Your task to perform on an android device: turn on data saver in the chrome app Image 0: 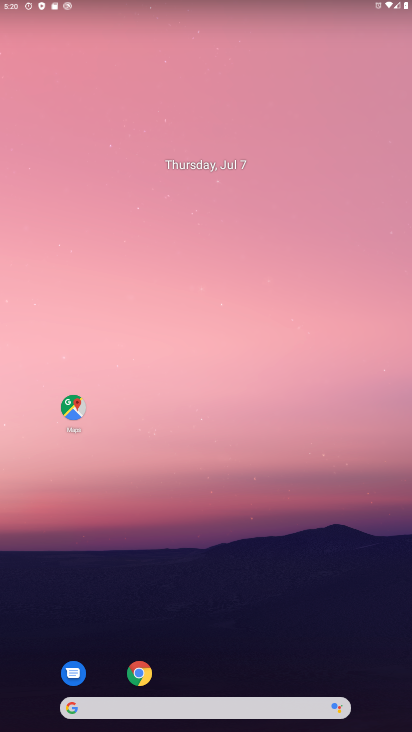
Step 0: drag from (341, 677) to (301, 37)
Your task to perform on an android device: turn on data saver in the chrome app Image 1: 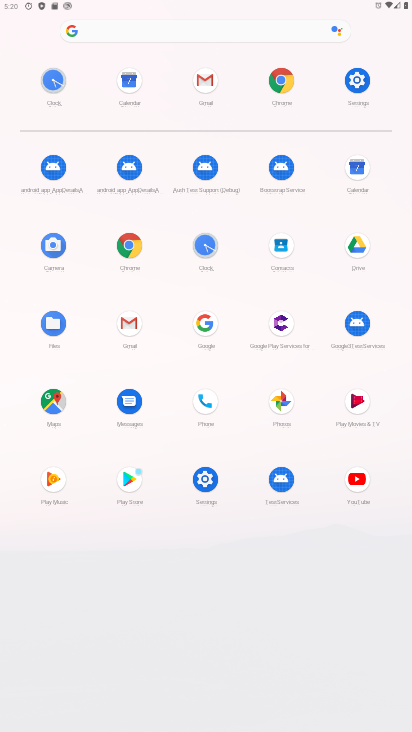
Step 1: click (130, 251)
Your task to perform on an android device: turn on data saver in the chrome app Image 2: 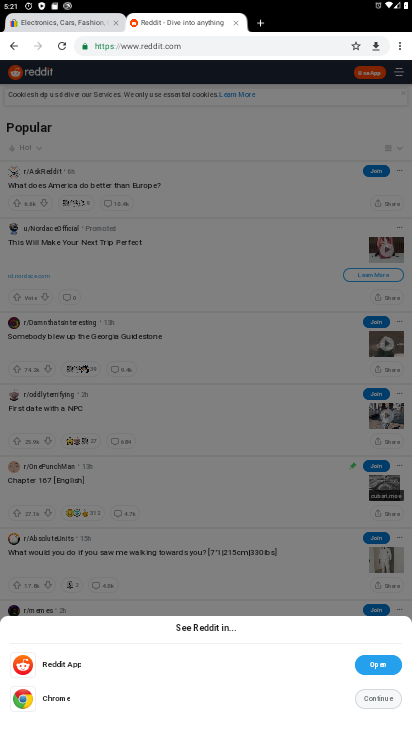
Step 2: drag from (399, 43) to (313, 314)
Your task to perform on an android device: turn on data saver in the chrome app Image 3: 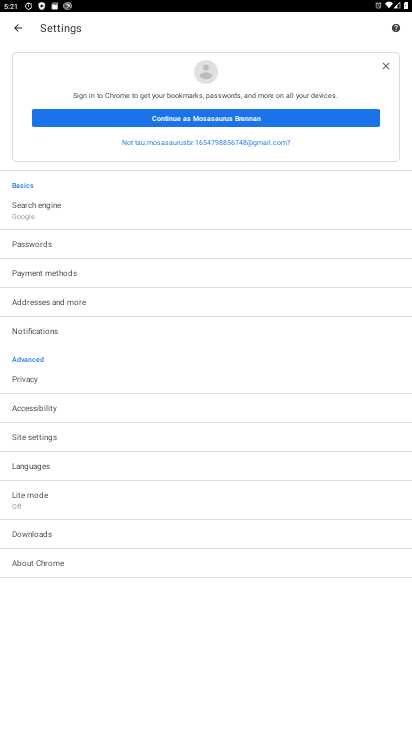
Step 3: click (89, 506)
Your task to perform on an android device: turn on data saver in the chrome app Image 4: 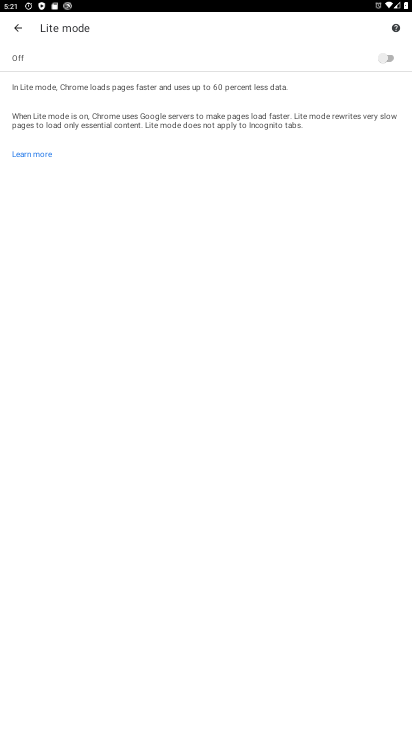
Step 4: click (381, 58)
Your task to perform on an android device: turn on data saver in the chrome app Image 5: 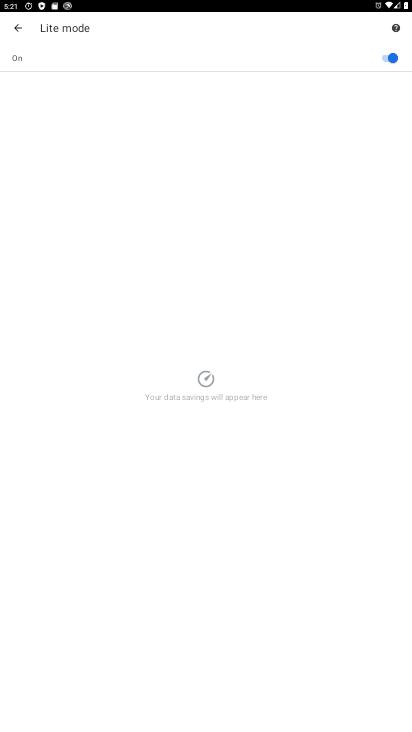
Step 5: task complete